Your task to perform on an android device: change alarm snooze length Image 0: 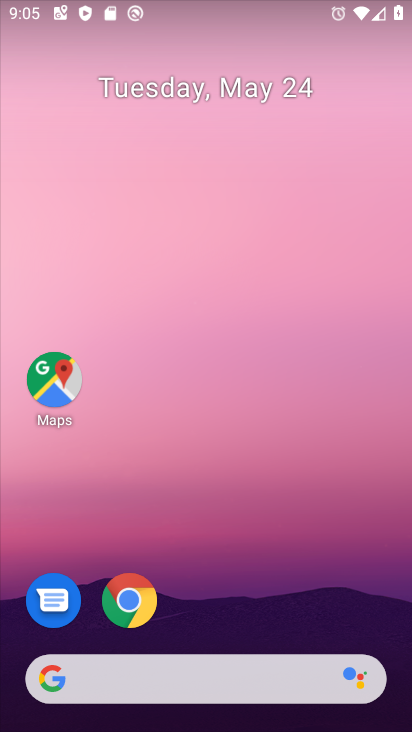
Step 0: drag from (228, 675) to (234, 42)
Your task to perform on an android device: change alarm snooze length Image 1: 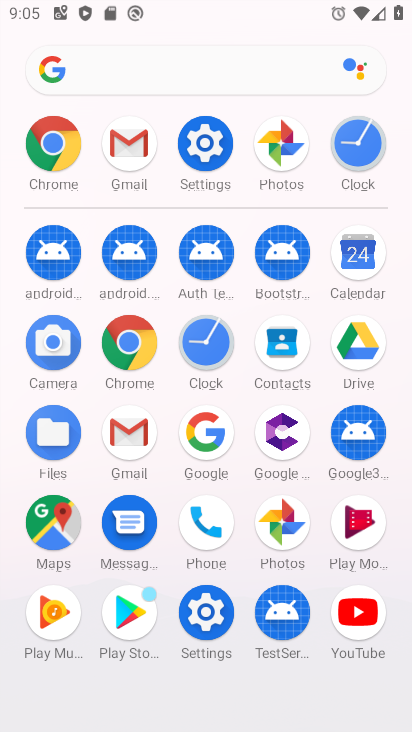
Step 1: click (199, 335)
Your task to perform on an android device: change alarm snooze length Image 2: 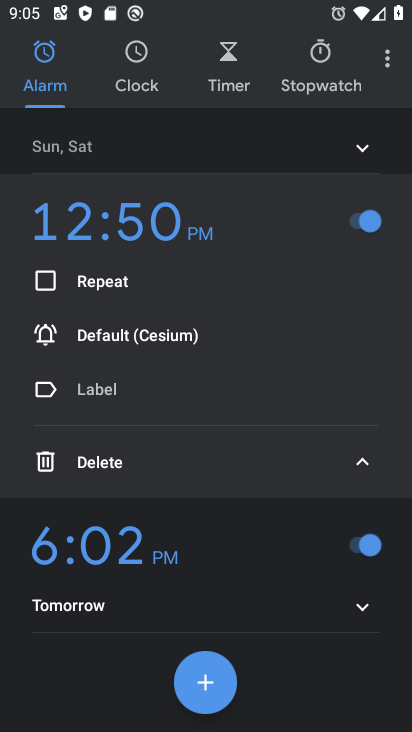
Step 2: click (387, 70)
Your task to perform on an android device: change alarm snooze length Image 3: 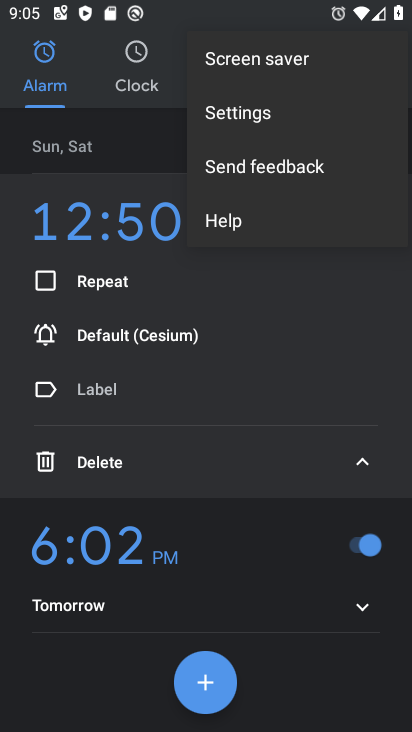
Step 3: click (220, 107)
Your task to perform on an android device: change alarm snooze length Image 4: 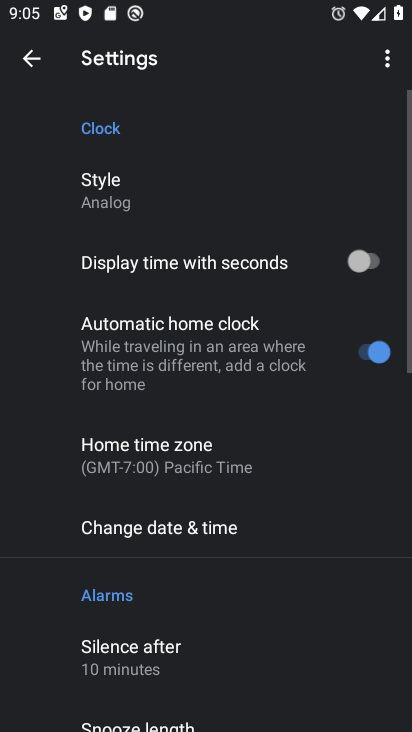
Step 4: drag from (160, 622) to (159, 353)
Your task to perform on an android device: change alarm snooze length Image 5: 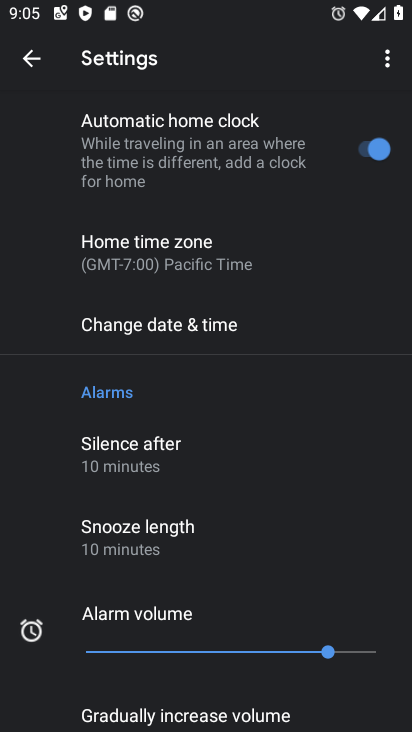
Step 5: click (153, 538)
Your task to perform on an android device: change alarm snooze length Image 6: 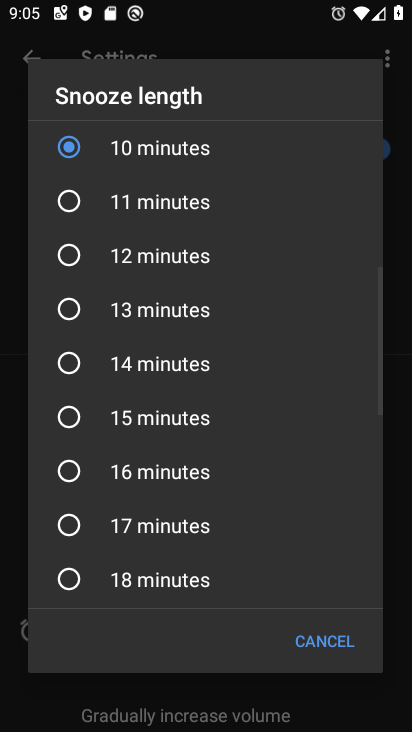
Step 6: click (69, 525)
Your task to perform on an android device: change alarm snooze length Image 7: 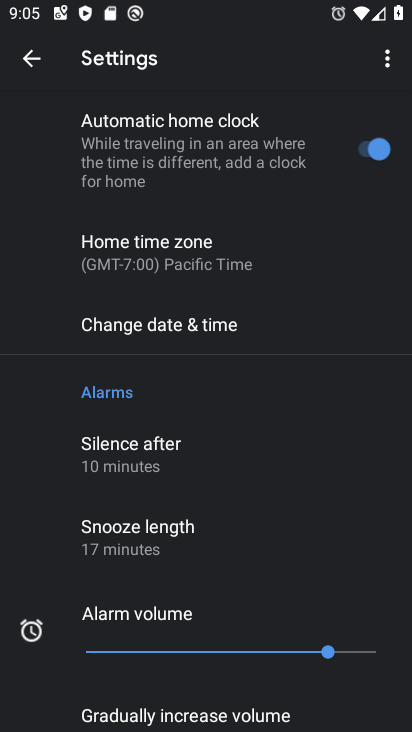
Step 7: task complete